Your task to perform on an android device: Go to Android settings Image 0: 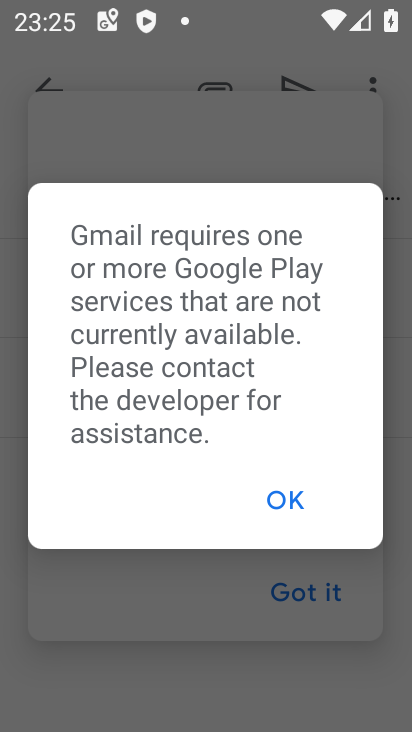
Step 0: drag from (371, 564) to (351, 429)
Your task to perform on an android device: Go to Android settings Image 1: 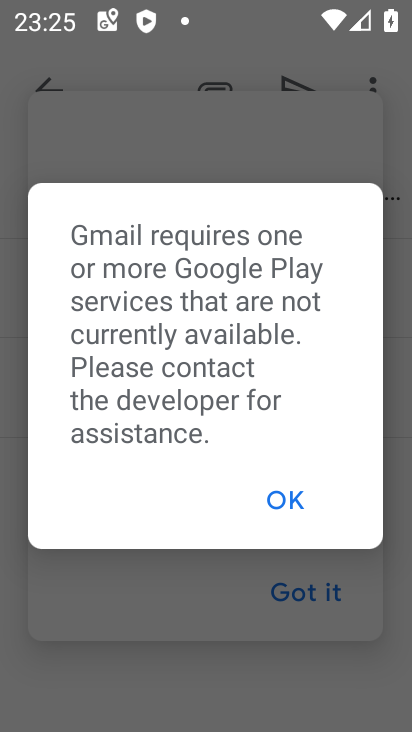
Step 1: press home button
Your task to perform on an android device: Go to Android settings Image 2: 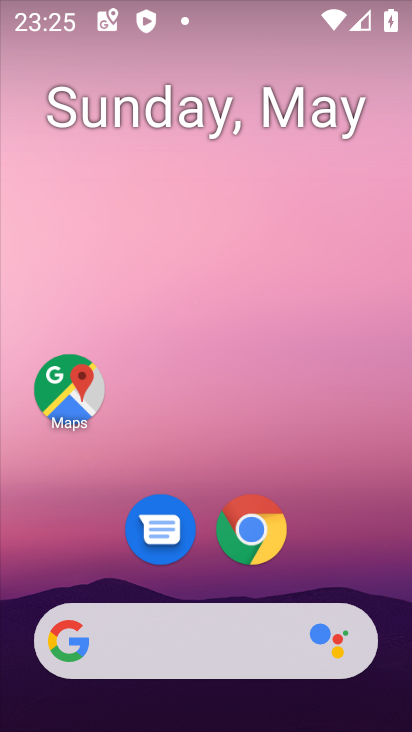
Step 2: drag from (376, 582) to (319, 164)
Your task to perform on an android device: Go to Android settings Image 3: 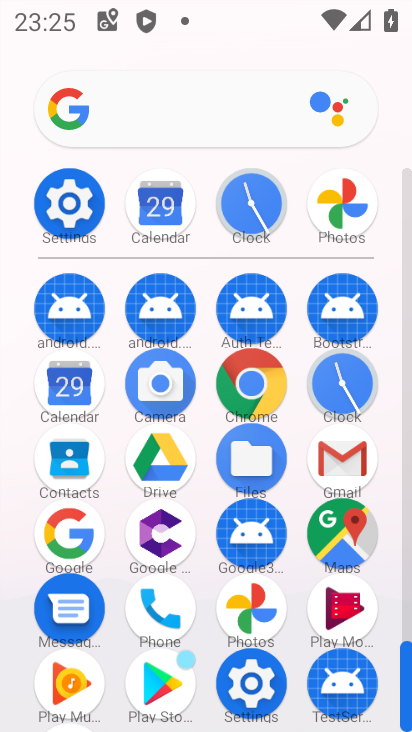
Step 3: click (81, 212)
Your task to perform on an android device: Go to Android settings Image 4: 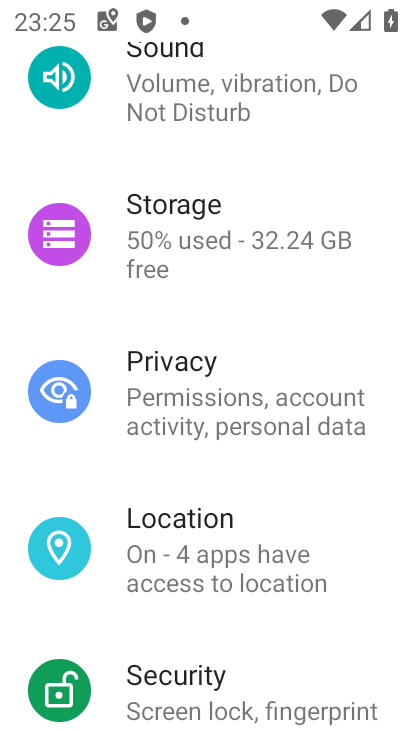
Step 4: task complete